Your task to perform on an android device: make emails show in primary in the gmail app Image 0: 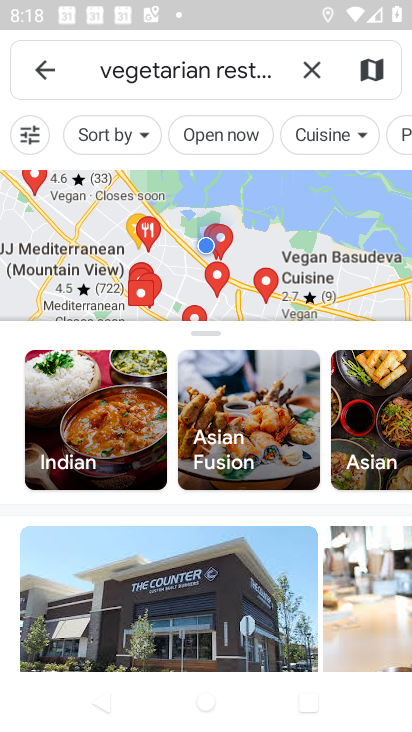
Step 0: click (34, 354)
Your task to perform on an android device: make emails show in primary in the gmail app Image 1: 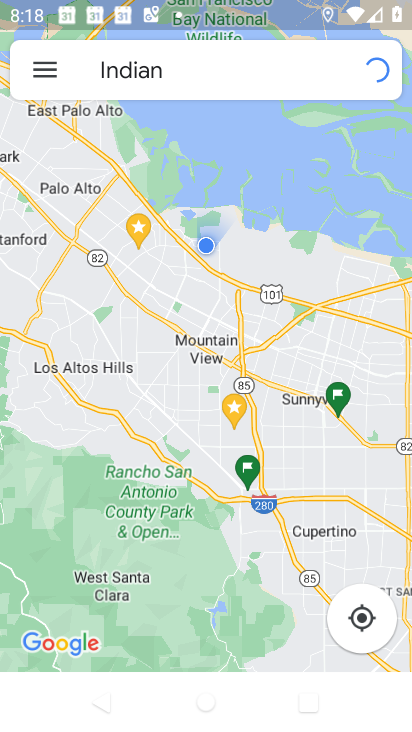
Step 1: press home button
Your task to perform on an android device: make emails show in primary in the gmail app Image 2: 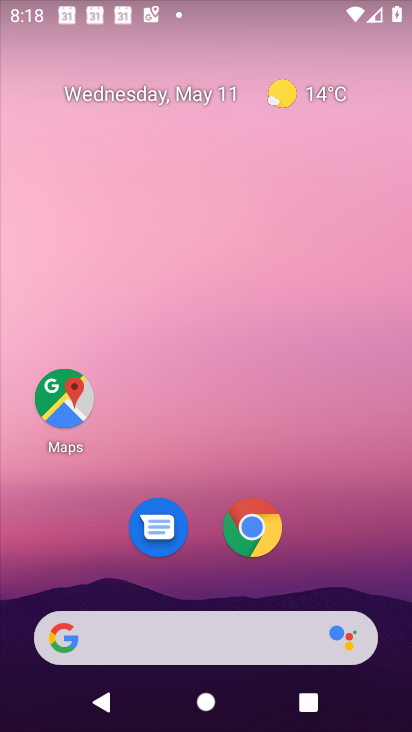
Step 2: drag from (212, 582) to (230, 119)
Your task to perform on an android device: make emails show in primary in the gmail app Image 3: 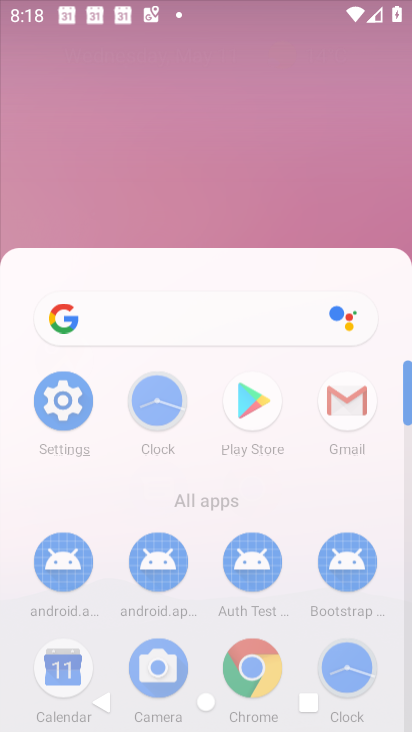
Step 3: click (230, 119)
Your task to perform on an android device: make emails show in primary in the gmail app Image 4: 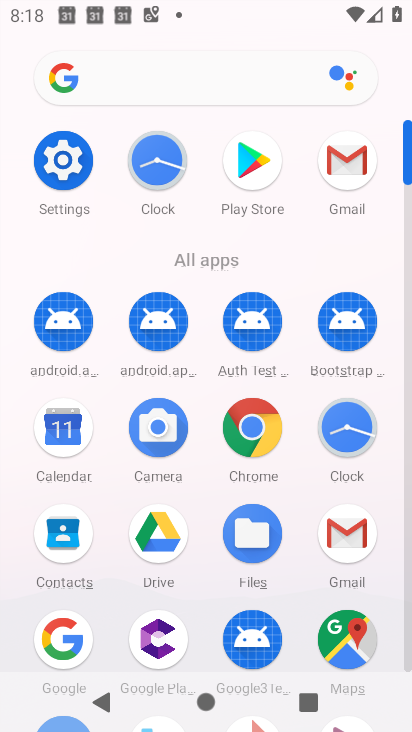
Step 4: click (332, 538)
Your task to perform on an android device: make emails show in primary in the gmail app Image 5: 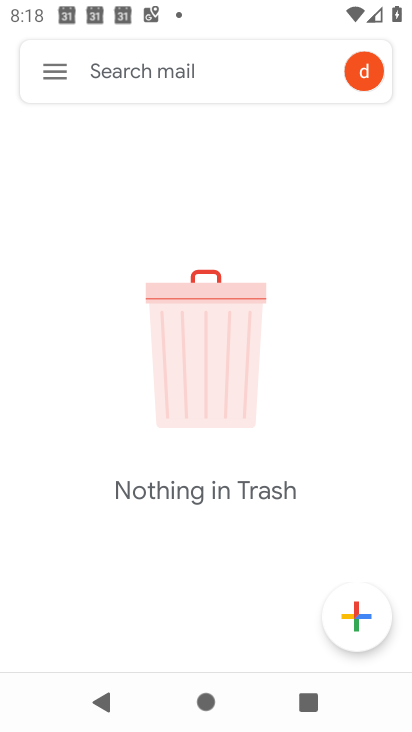
Step 5: click (332, 538)
Your task to perform on an android device: make emails show in primary in the gmail app Image 6: 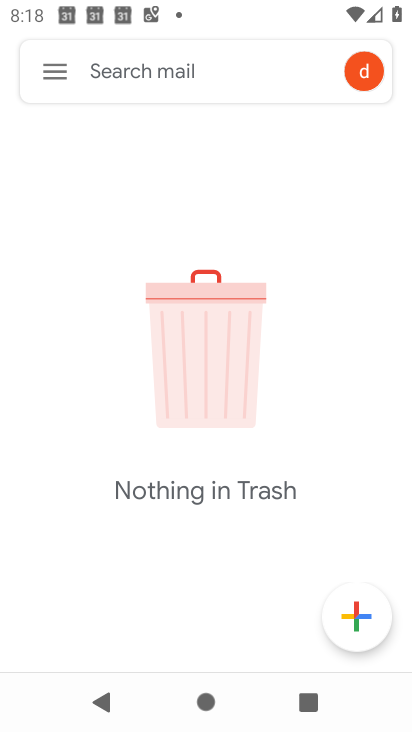
Step 6: click (66, 88)
Your task to perform on an android device: make emails show in primary in the gmail app Image 7: 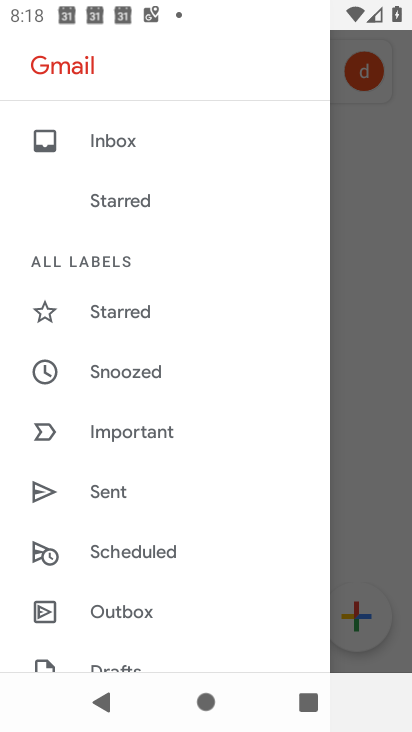
Step 7: task complete